Your task to perform on an android device: open device folders in google photos Image 0: 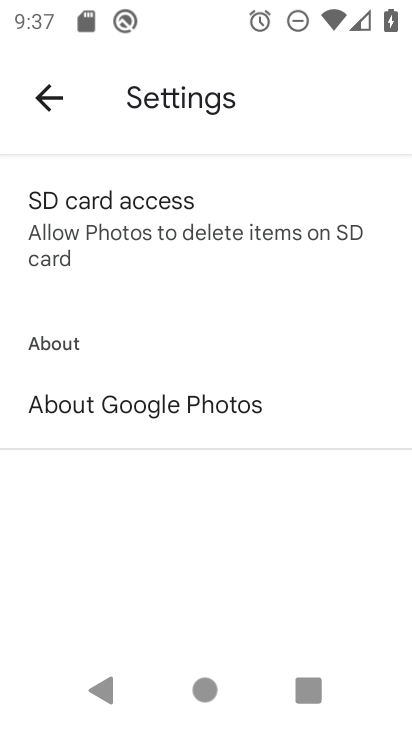
Step 0: press home button
Your task to perform on an android device: open device folders in google photos Image 1: 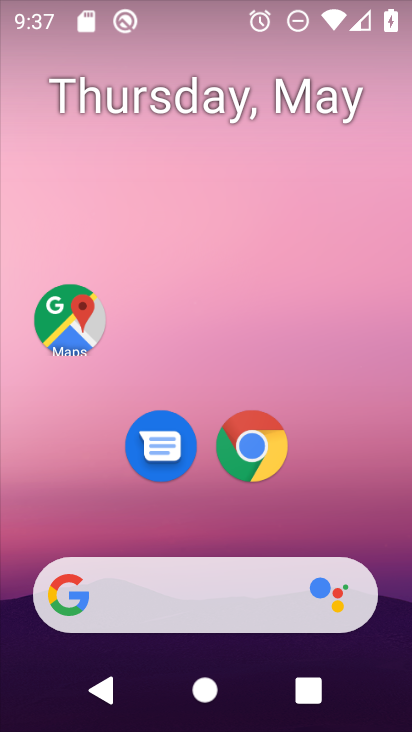
Step 1: drag from (359, 479) to (317, 113)
Your task to perform on an android device: open device folders in google photos Image 2: 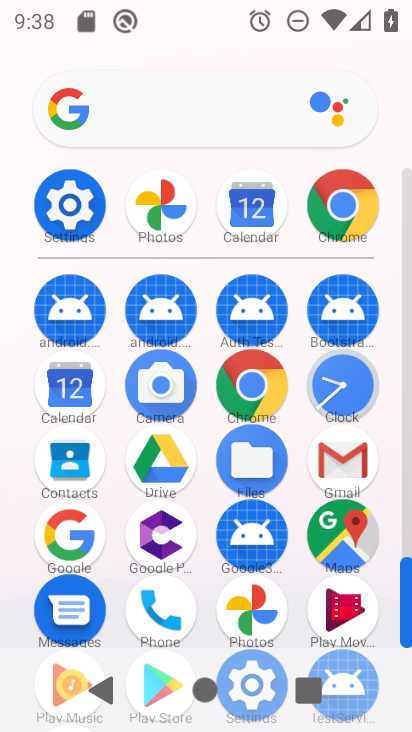
Step 2: drag from (292, 576) to (297, 241)
Your task to perform on an android device: open device folders in google photos Image 3: 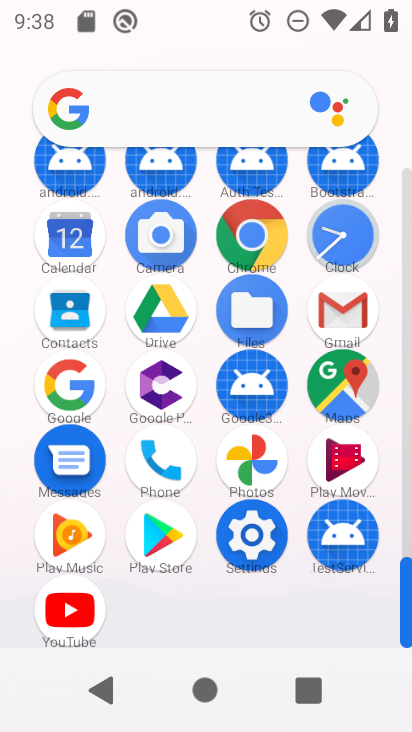
Step 3: click (229, 471)
Your task to perform on an android device: open device folders in google photos Image 4: 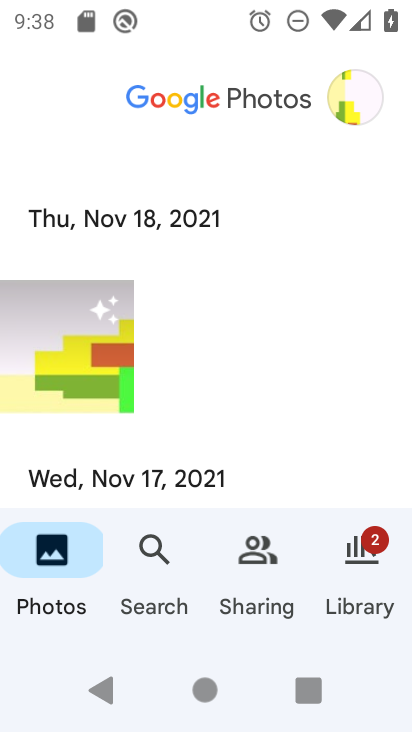
Step 4: click (154, 565)
Your task to perform on an android device: open device folders in google photos Image 5: 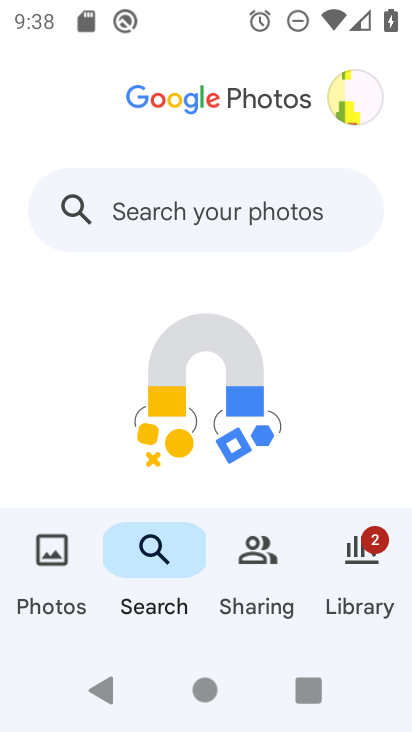
Step 5: task complete